Your task to perform on an android device: see tabs open on other devices in the chrome app Image 0: 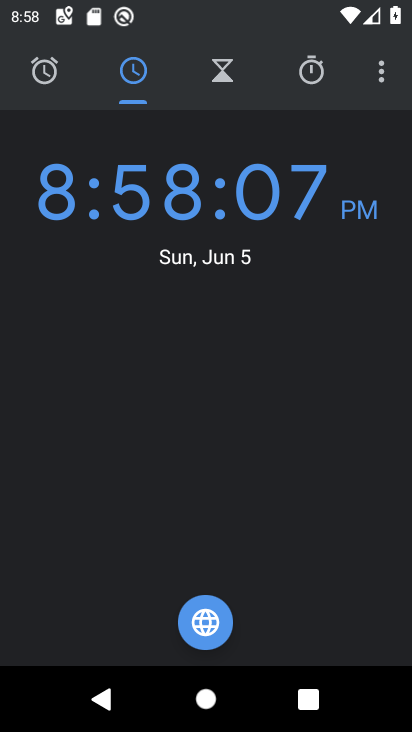
Step 0: press home button
Your task to perform on an android device: see tabs open on other devices in the chrome app Image 1: 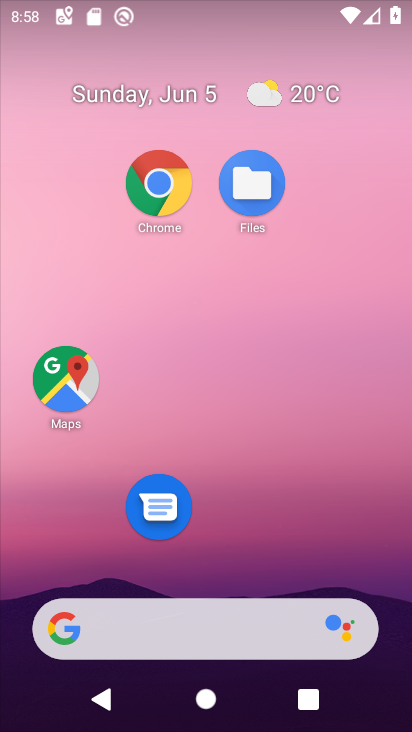
Step 1: drag from (260, 579) to (331, 217)
Your task to perform on an android device: see tabs open on other devices in the chrome app Image 2: 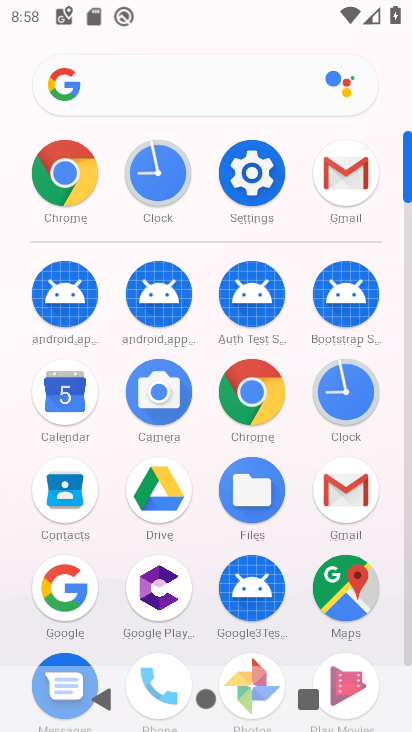
Step 2: click (58, 164)
Your task to perform on an android device: see tabs open on other devices in the chrome app Image 3: 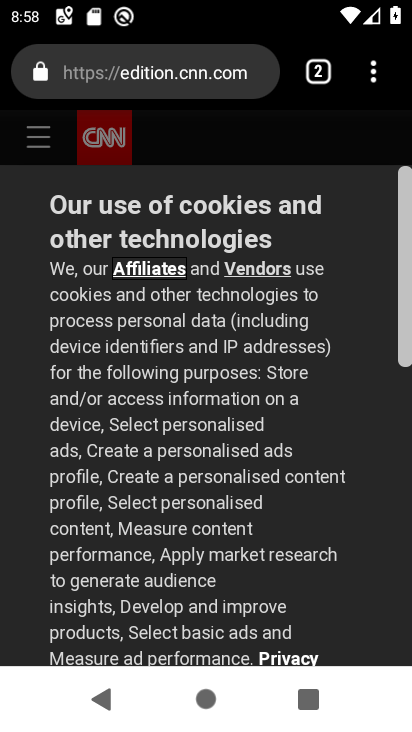
Step 3: click (318, 64)
Your task to perform on an android device: see tabs open on other devices in the chrome app Image 4: 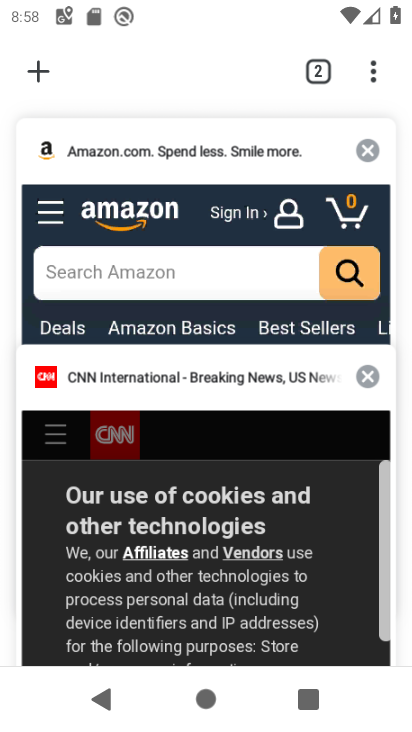
Step 4: task complete